Your task to perform on an android device: Open location settings Image 0: 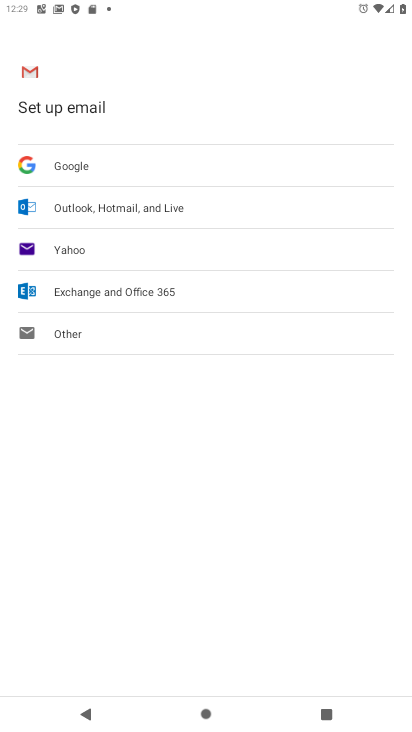
Step 0: press home button
Your task to perform on an android device: Open location settings Image 1: 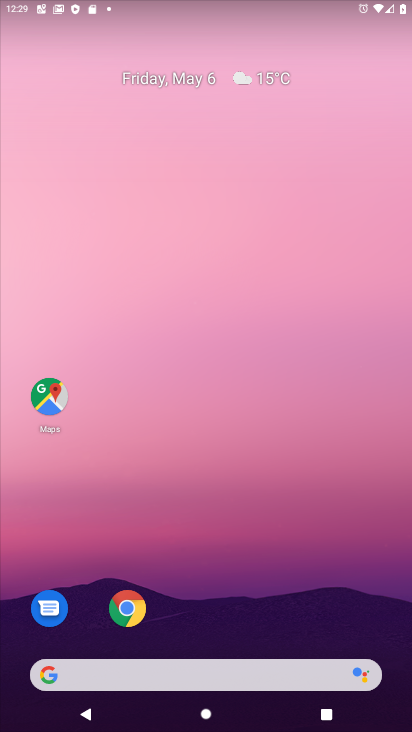
Step 1: drag from (253, 505) to (283, 69)
Your task to perform on an android device: Open location settings Image 2: 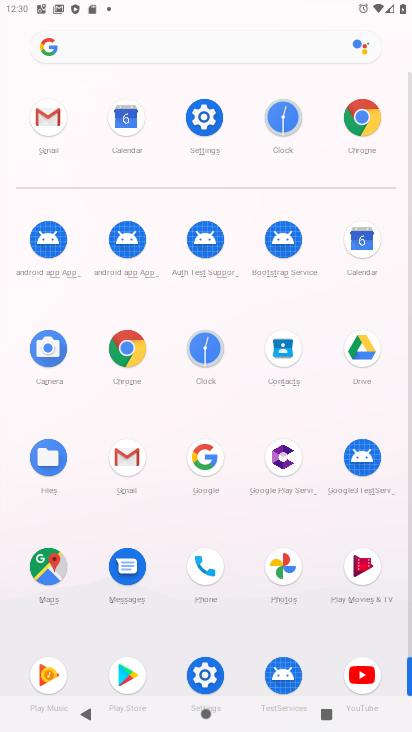
Step 2: click (206, 116)
Your task to perform on an android device: Open location settings Image 3: 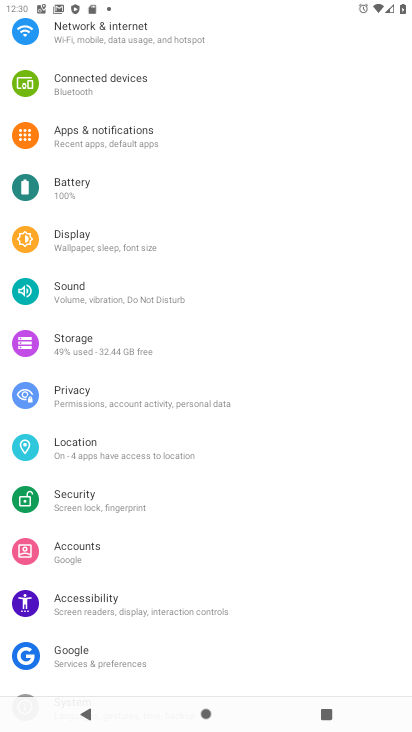
Step 3: click (123, 454)
Your task to perform on an android device: Open location settings Image 4: 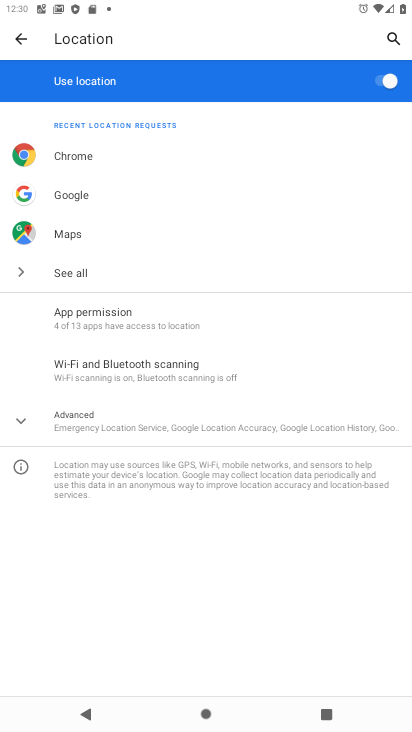
Step 4: task complete